Your task to perform on an android device: Open Wikipedia Image 0: 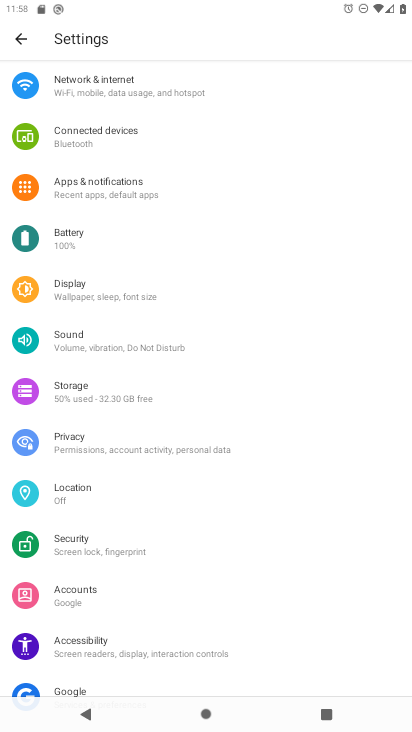
Step 0: press home button
Your task to perform on an android device: Open Wikipedia Image 1: 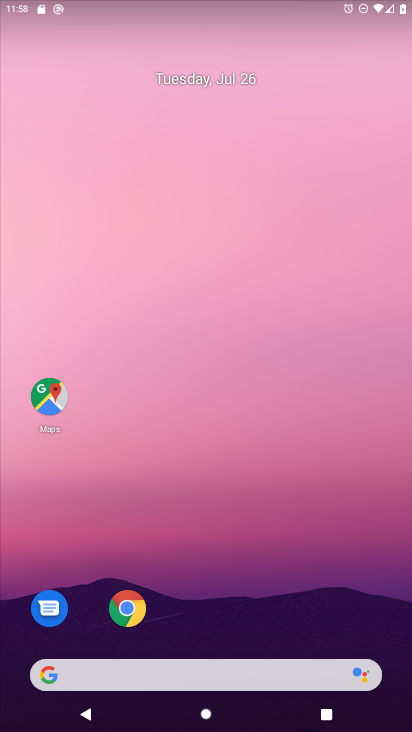
Step 1: drag from (292, 599) to (280, 28)
Your task to perform on an android device: Open Wikipedia Image 2: 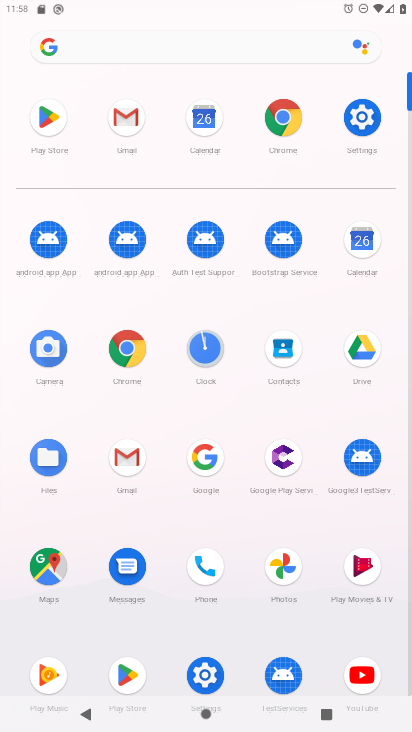
Step 2: click (277, 116)
Your task to perform on an android device: Open Wikipedia Image 3: 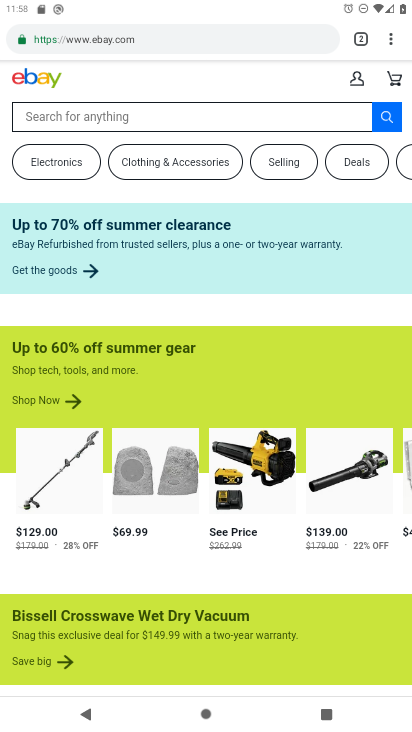
Step 3: click (235, 35)
Your task to perform on an android device: Open Wikipedia Image 4: 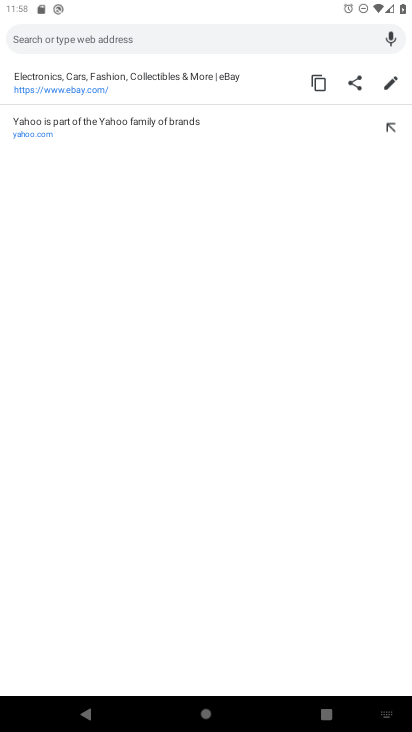
Step 4: type "wikipedia"
Your task to perform on an android device: Open Wikipedia Image 5: 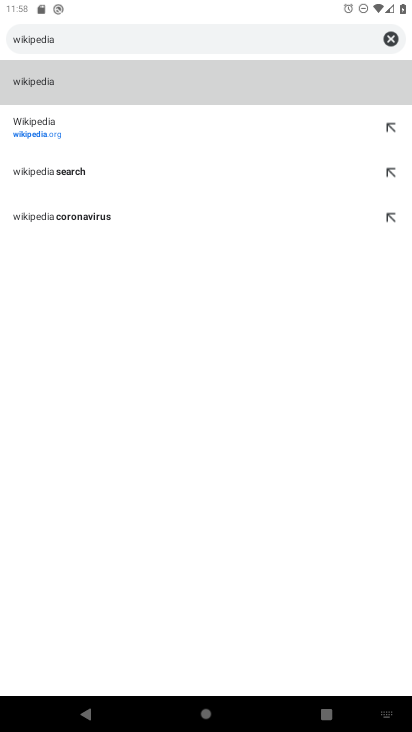
Step 5: click (35, 79)
Your task to perform on an android device: Open Wikipedia Image 6: 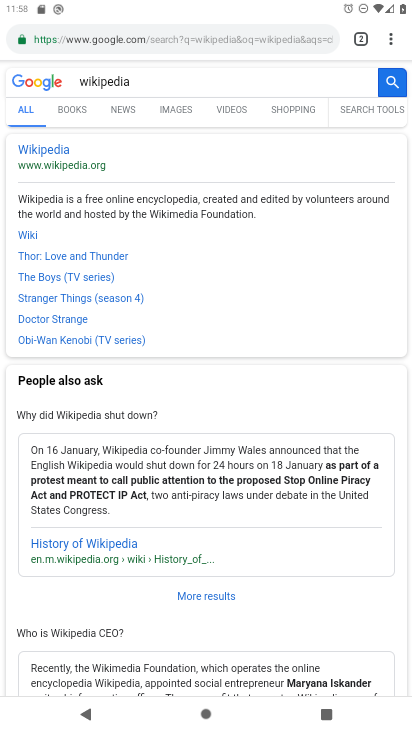
Step 6: click (59, 168)
Your task to perform on an android device: Open Wikipedia Image 7: 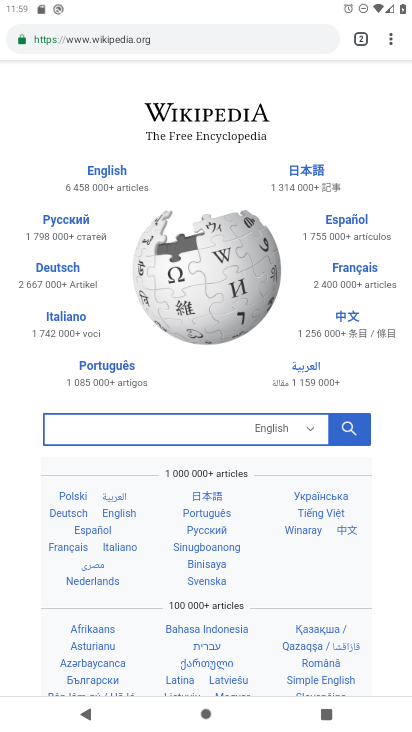
Step 7: task complete